Your task to perform on an android device: Open the calendar app, open the side menu, and click the "Day" option Image 0: 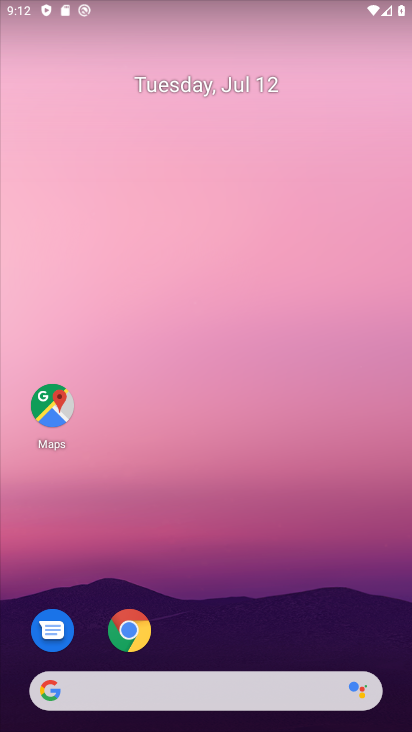
Step 0: drag from (208, 609) to (272, 21)
Your task to perform on an android device: Open the calendar app, open the side menu, and click the "Day" option Image 1: 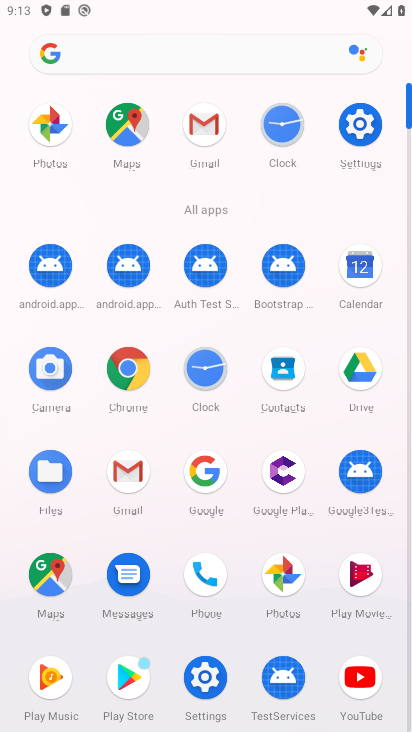
Step 1: click (359, 273)
Your task to perform on an android device: Open the calendar app, open the side menu, and click the "Day" option Image 2: 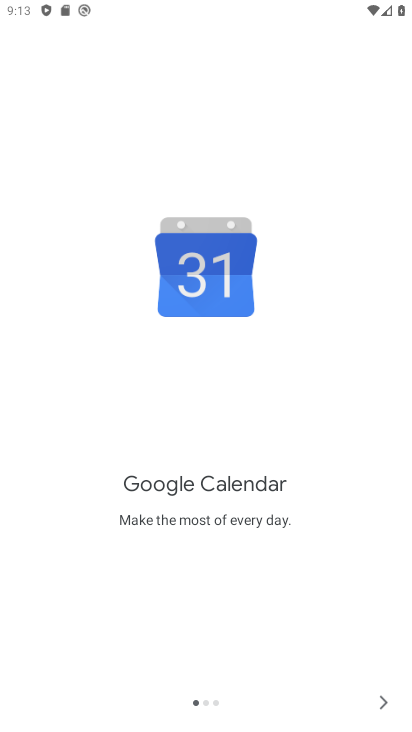
Step 2: click (373, 703)
Your task to perform on an android device: Open the calendar app, open the side menu, and click the "Day" option Image 3: 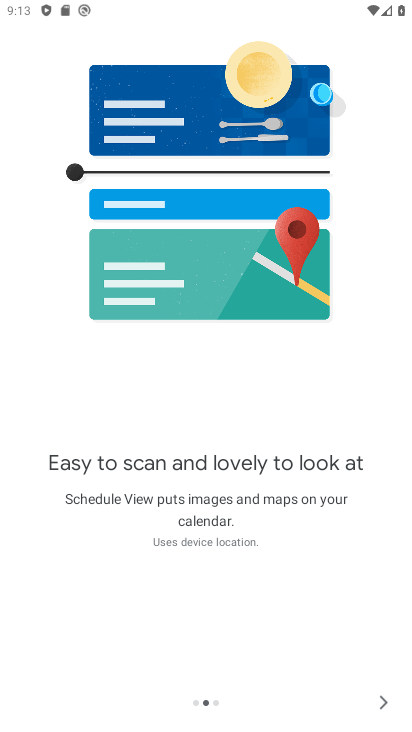
Step 3: click (383, 699)
Your task to perform on an android device: Open the calendar app, open the side menu, and click the "Day" option Image 4: 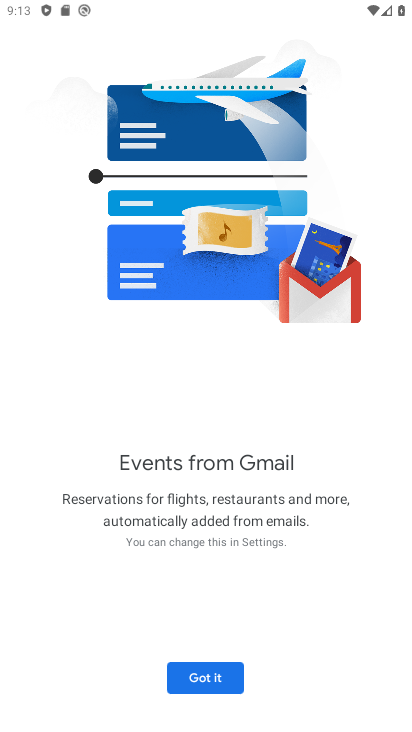
Step 4: click (221, 673)
Your task to perform on an android device: Open the calendar app, open the side menu, and click the "Day" option Image 5: 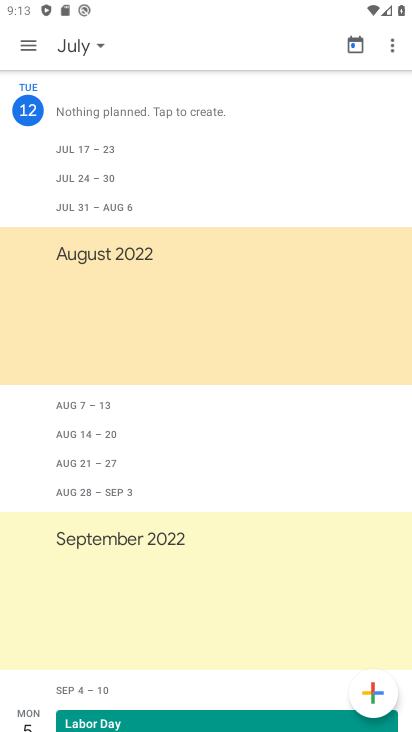
Step 5: click (28, 44)
Your task to perform on an android device: Open the calendar app, open the side menu, and click the "Day" option Image 6: 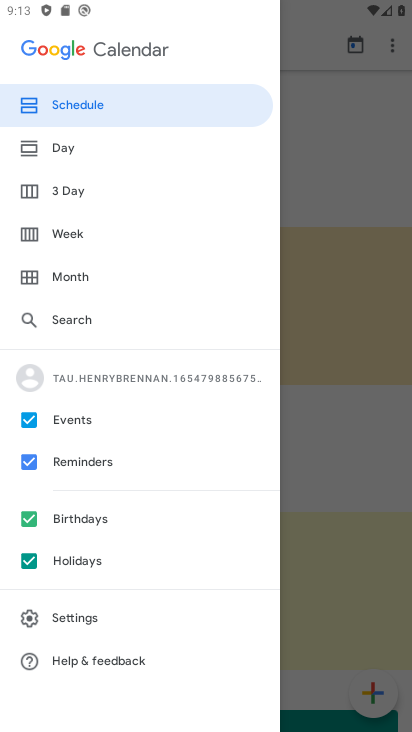
Step 6: click (83, 154)
Your task to perform on an android device: Open the calendar app, open the side menu, and click the "Day" option Image 7: 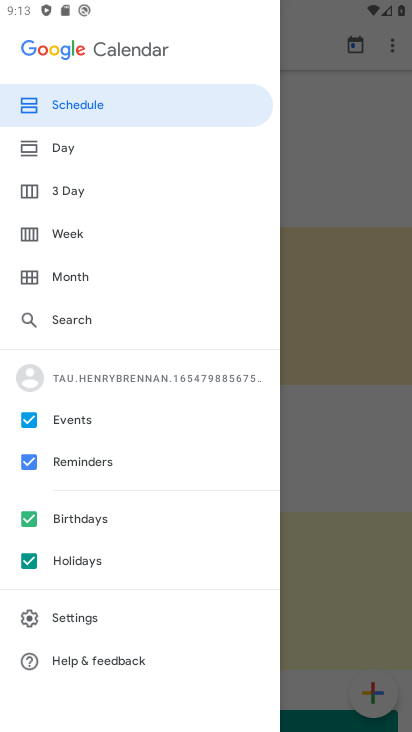
Step 7: click (62, 146)
Your task to perform on an android device: Open the calendar app, open the side menu, and click the "Day" option Image 8: 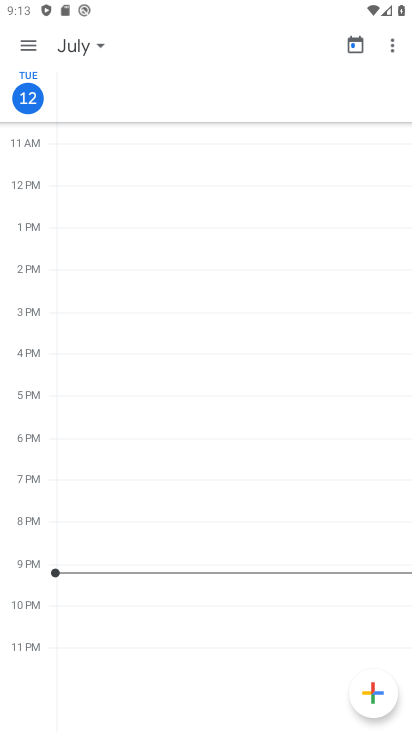
Step 8: task complete